Your task to perform on an android device: Show the shopping cart on ebay. Add "logitech g pro" to the cart on ebay Image 0: 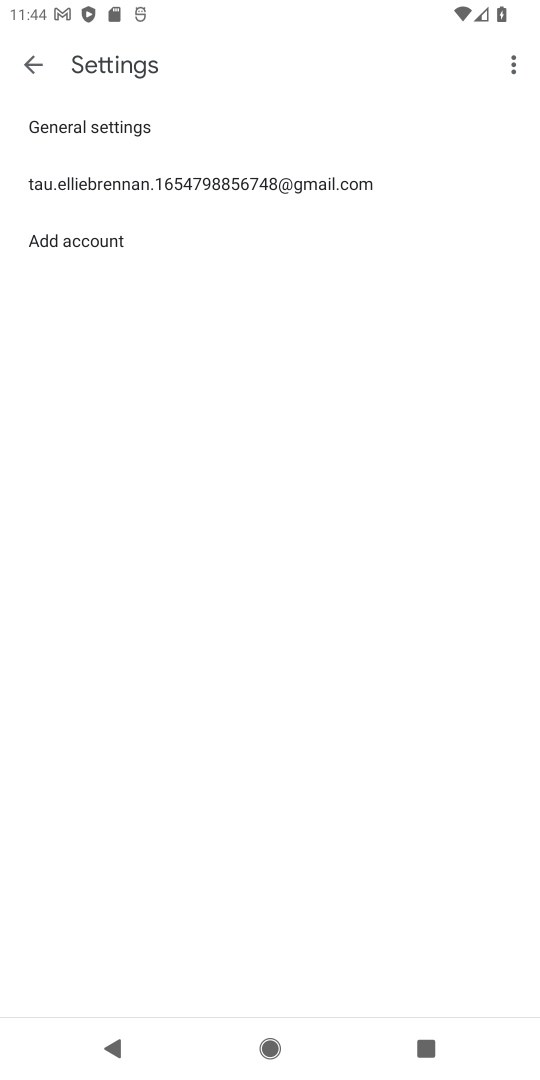
Step 0: press home button
Your task to perform on an android device: Show the shopping cart on ebay. Add "logitech g pro" to the cart on ebay Image 1: 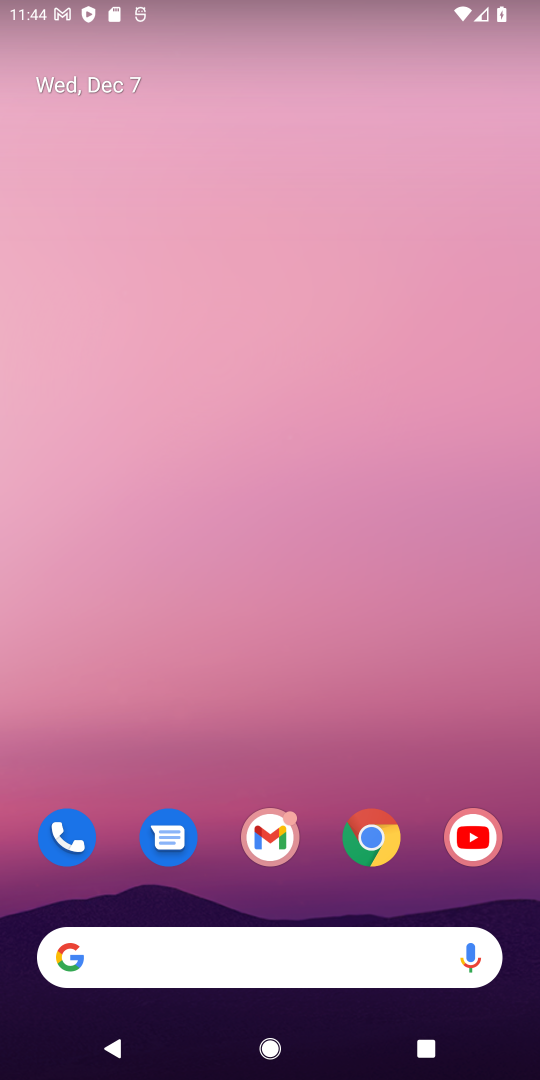
Step 1: click (366, 837)
Your task to perform on an android device: Show the shopping cart on ebay. Add "logitech g pro" to the cart on ebay Image 2: 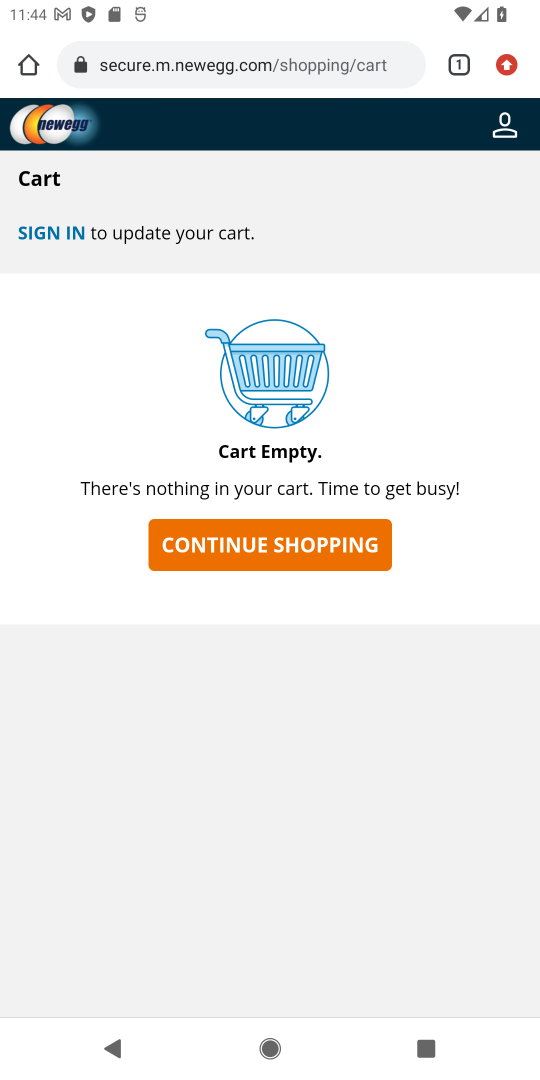
Step 2: click (291, 66)
Your task to perform on an android device: Show the shopping cart on ebay. Add "logitech g pro" to the cart on ebay Image 3: 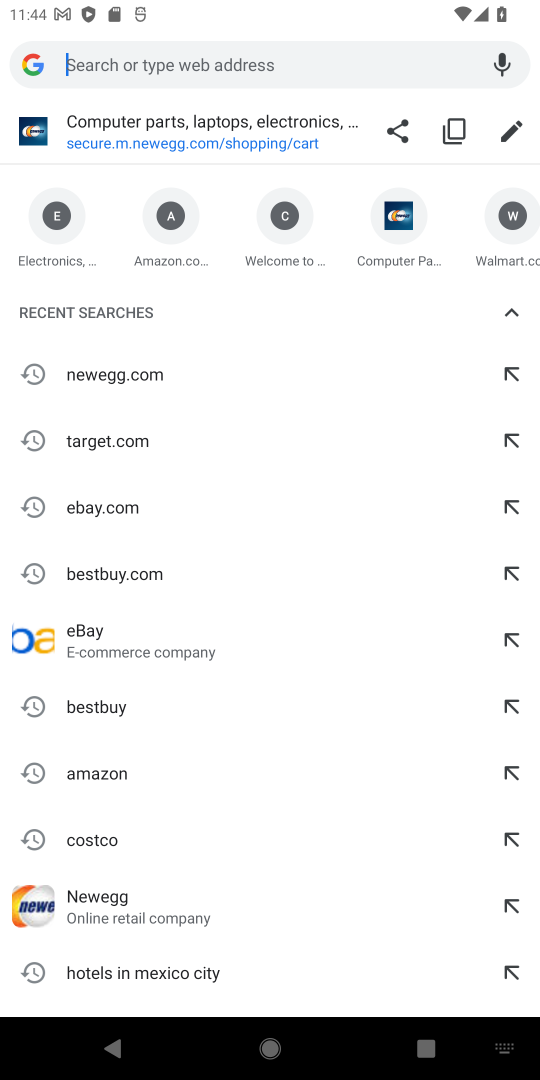
Step 3: click (114, 506)
Your task to perform on an android device: Show the shopping cart on ebay. Add "logitech g pro" to the cart on ebay Image 4: 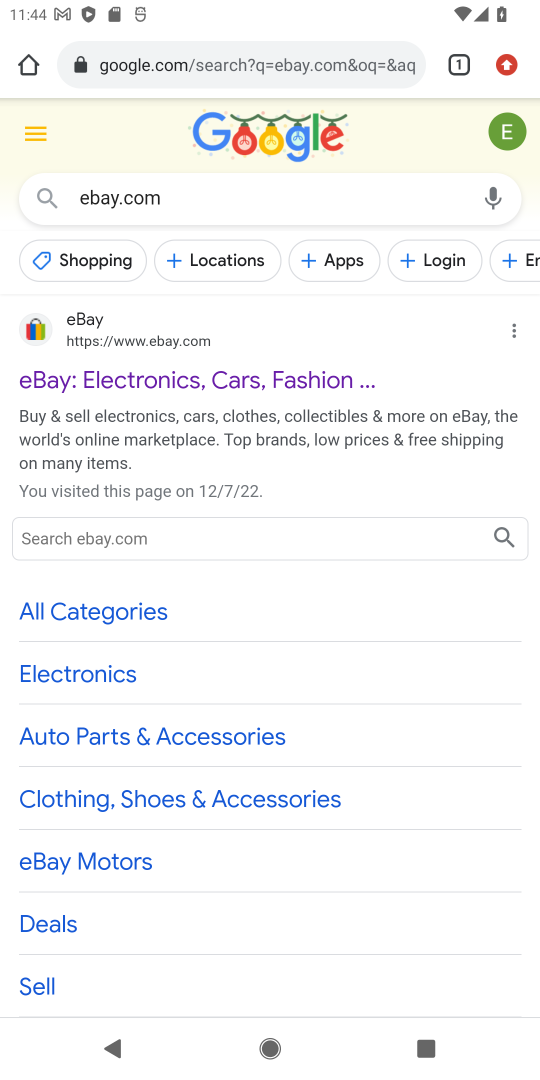
Step 4: click (183, 337)
Your task to perform on an android device: Show the shopping cart on ebay. Add "logitech g pro" to the cart on ebay Image 5: 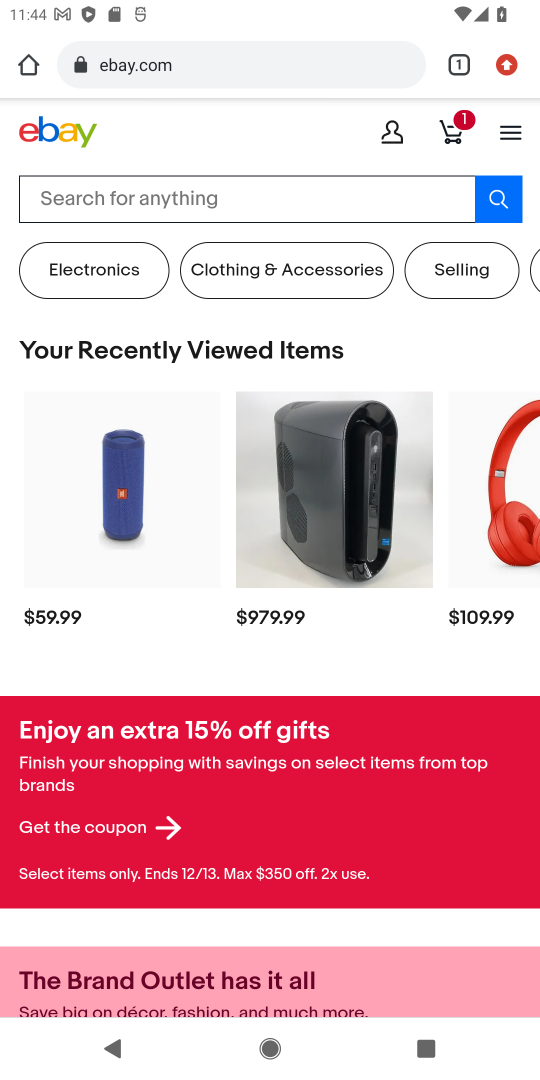
Step 5: click (456, 126)
Your task to perform on an android device: Show the shopping cart on ebay. Add "logitech g pro" to the cart on ebay Image 6: 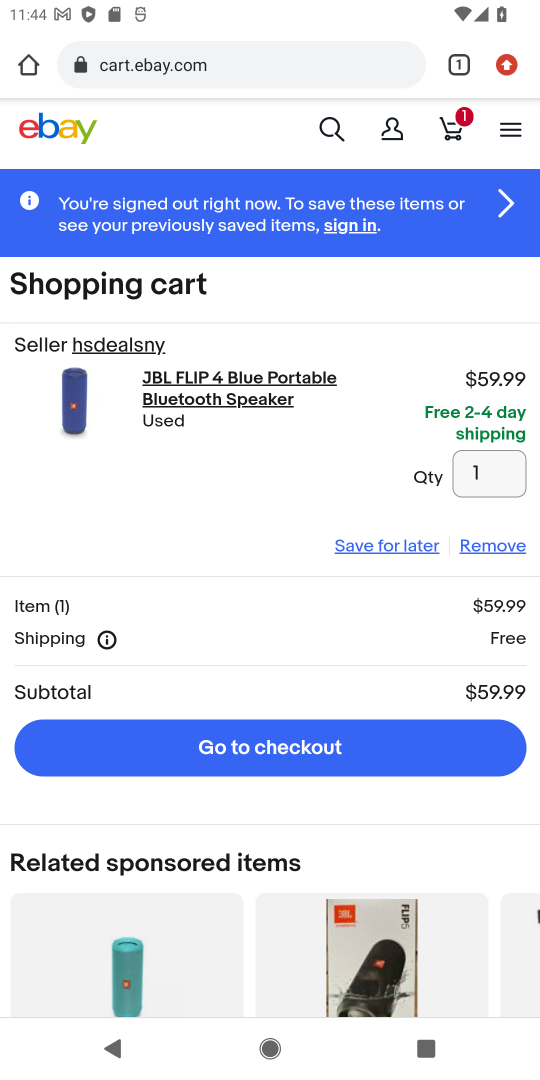
Step 6: click (335, 118)
Your task to perform on an android device: Show the shopping cart on ebay. Add "logitech g pro" to the cart on ebay Image 7: 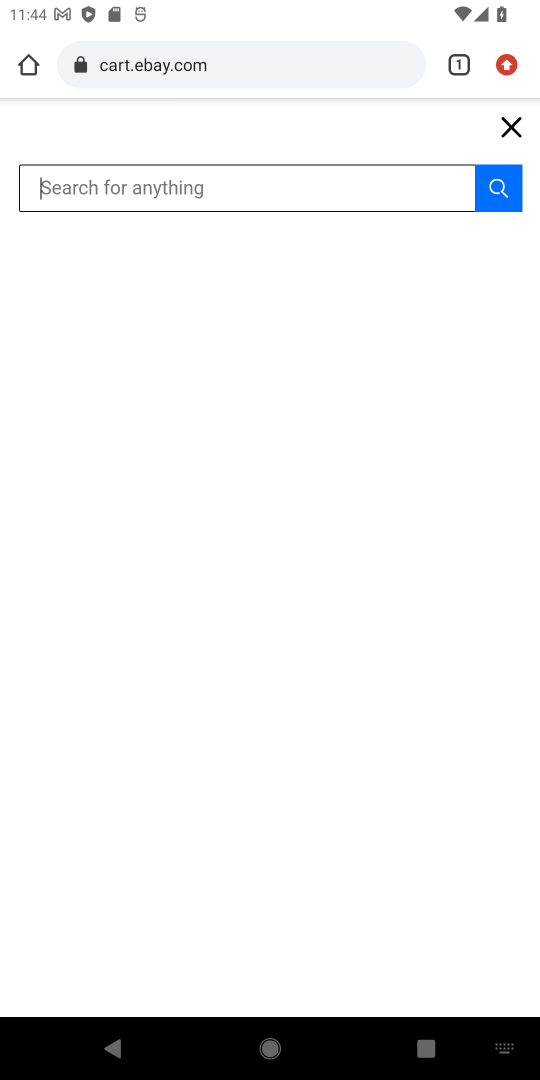
Step 7: type "logitech g pro"
Your task to perform on an android device: Show the shopping cart on ebay. Add "logitech g pro" to the cart on ebay Image 8: 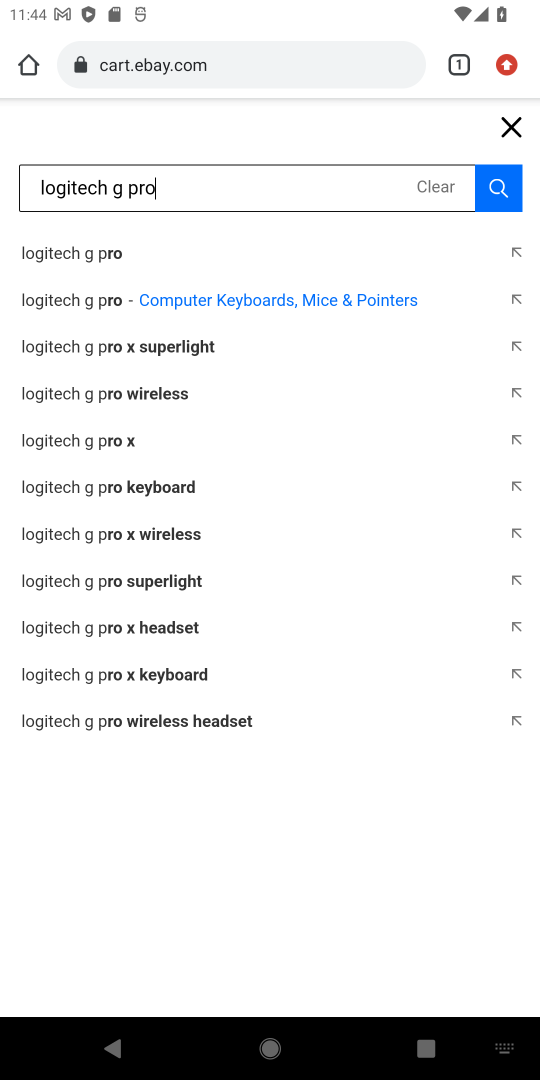
Step 8: click (93, 246)
Your task to perform on an android device: Show the shopping cart on ebay. Add "logitech g pro" to the cart on ebay Image 9: 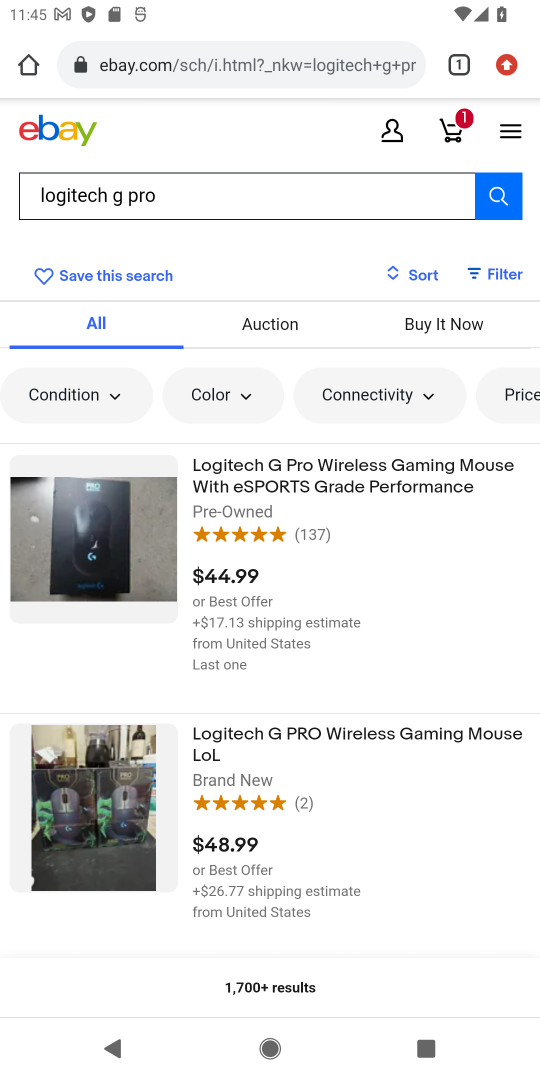
Step 9: click (123, 806)
Your task to perform on an android device: Show the shopping cart on ebay. Add "logitech g pro" to the cart on ebay Image 10: 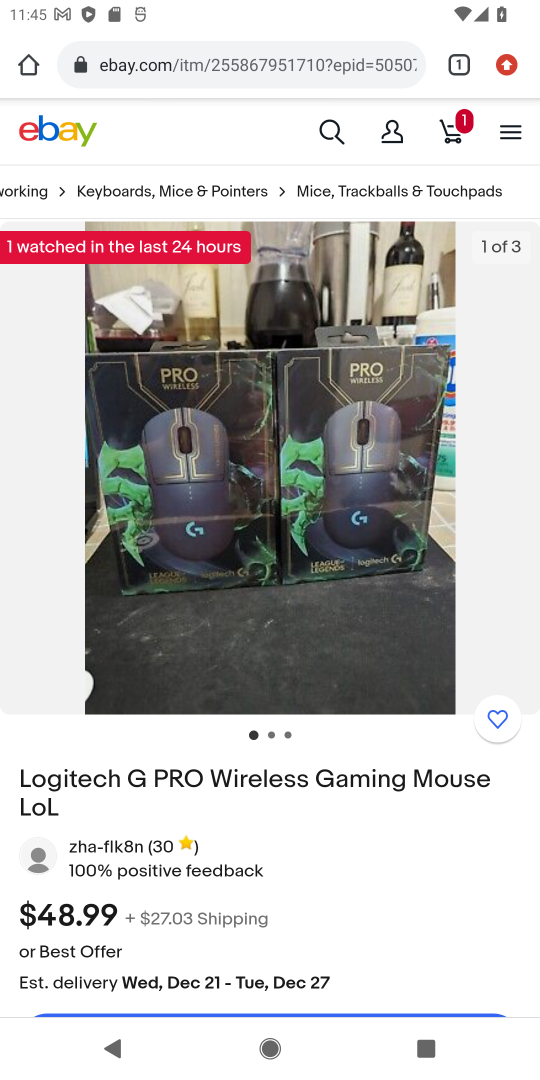
Step 10: drag from (439, 846) to (442, 350)
Your task to perform on an android device: Show the shopping cart on ebay. Add "logitech g pro" to the cart on ebay Image 11: 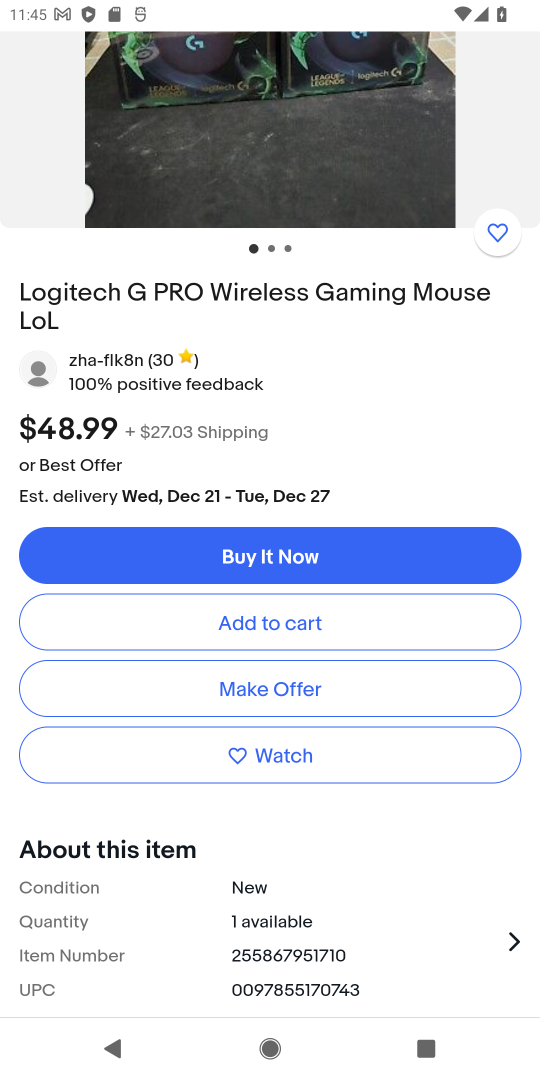
Step 11: click (280, 626)
Your task to perform on an android device: Show the shopping cart on ebay. Add "logitech g pro" to the cart on ebay Image 12: 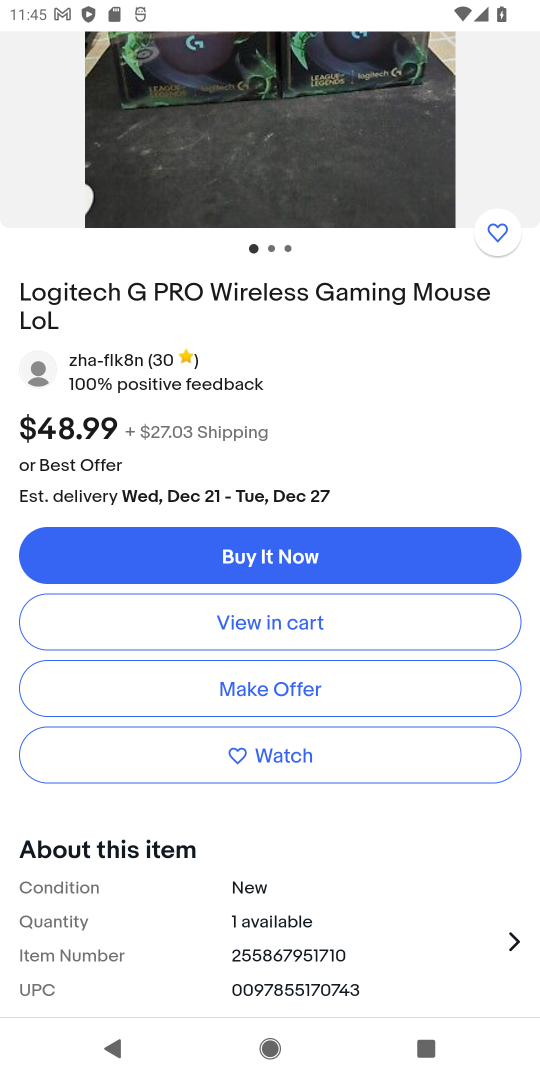
Step 12: click (280, 626)
Your task to perform on an android device: Show the shopping cart on ebay. Add "logitech g pro" to the cart on ebay Image 13: 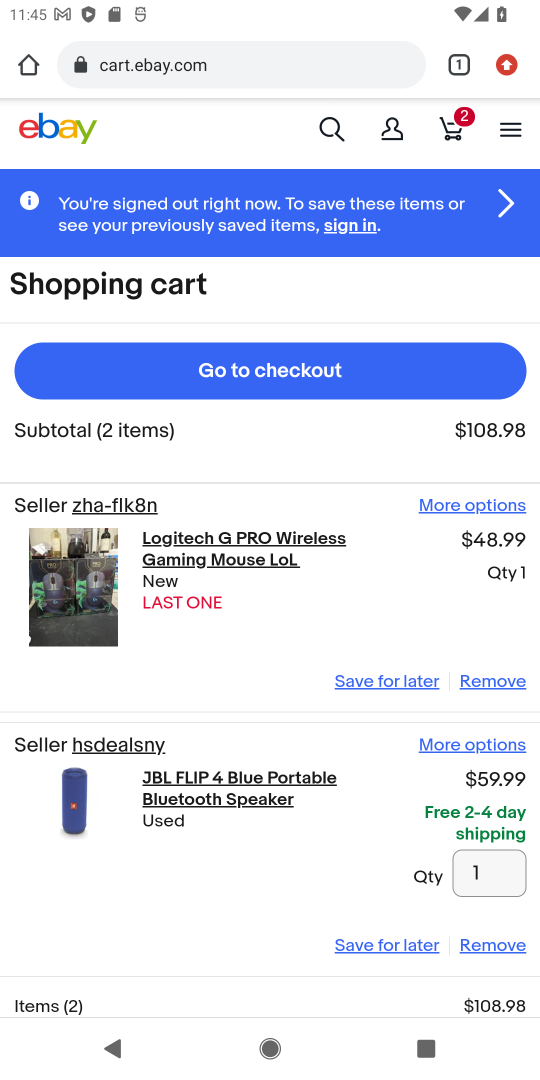
Step 13: task complete